Your task to perform on an android device: change text size in settings app Image 0: 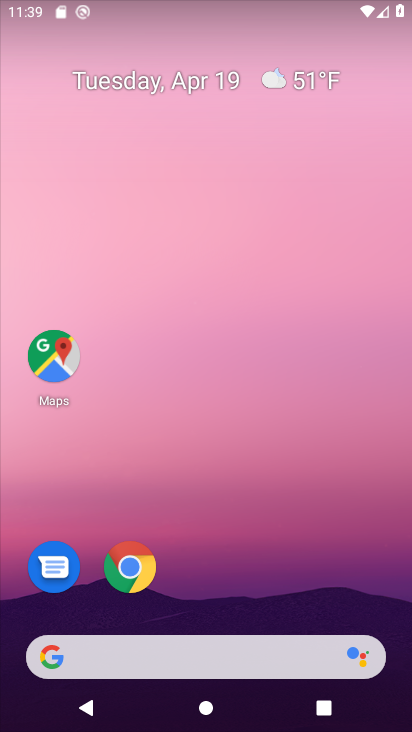
Step 0: drag from (239, 606) to (323, 92)
Your task to perform on an android device: change text size in settings app Image 1: 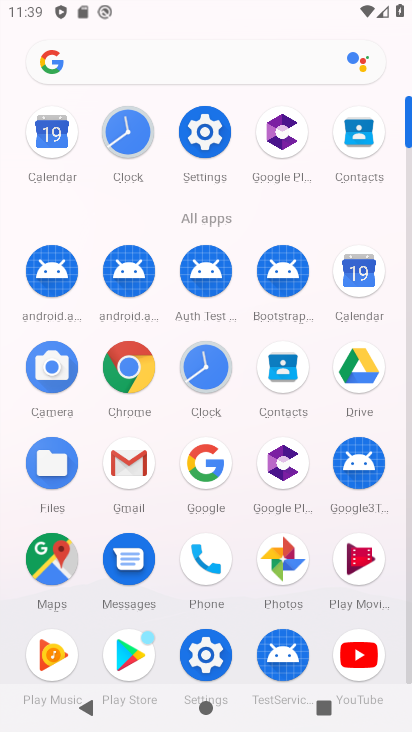
Step 1: click (206, 638)
Your task to perform on an android device: change text size in settings app Image 2: 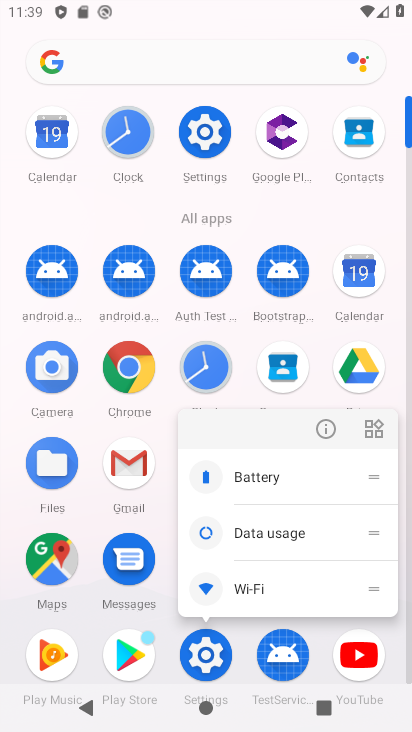
Step 2: click (205, 635)
Your task to perform on an android device: change text size in settings app Image 3: 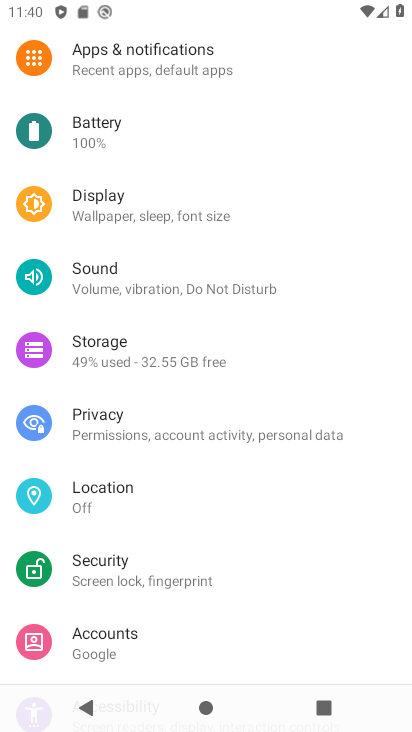
Step 3: click (108, 215)
Your task to perform on an android device: change text size in settings app Image 4: 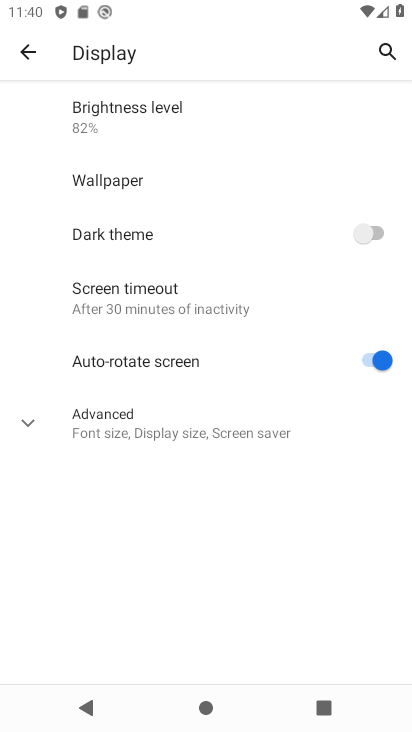
Step 4: click (123, 420)
Your task to perform on an android device: change text size in settings app Image 5: 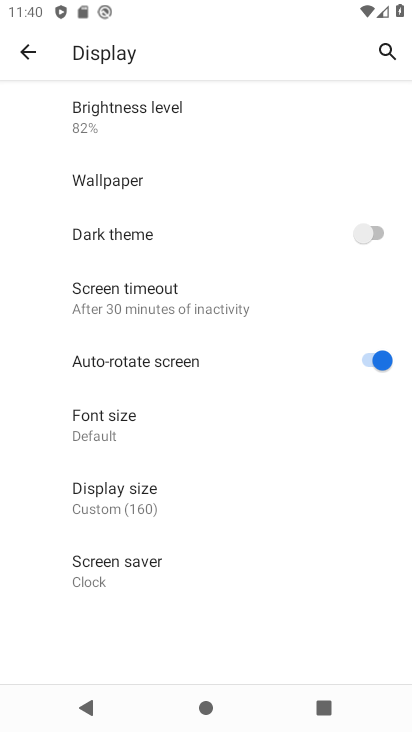
Step 5: click (111, 431)
Your task to perform on an android device: change text size in settings app Image 6: 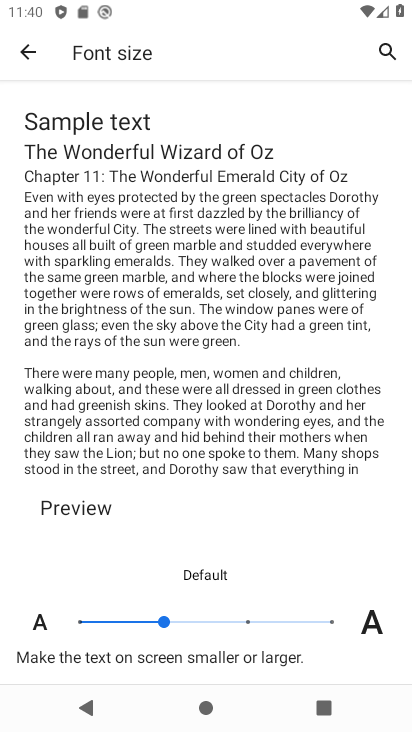
Step 6: click (242, 613)
Your task to perform on an android device: change text size in settings app Image 7: 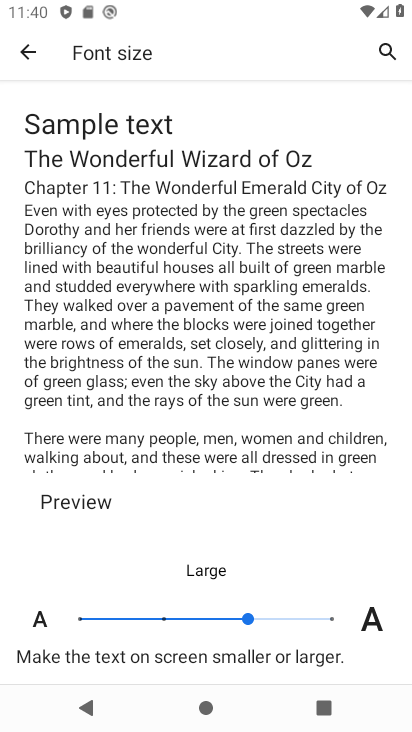
Step 7: task complete